Your task to perform on an android device: Empty the shopping cart on target.com. Search for "bose soundsport free" on target.com, select the first entry, add it to the cart, then select checkout. Image 0: 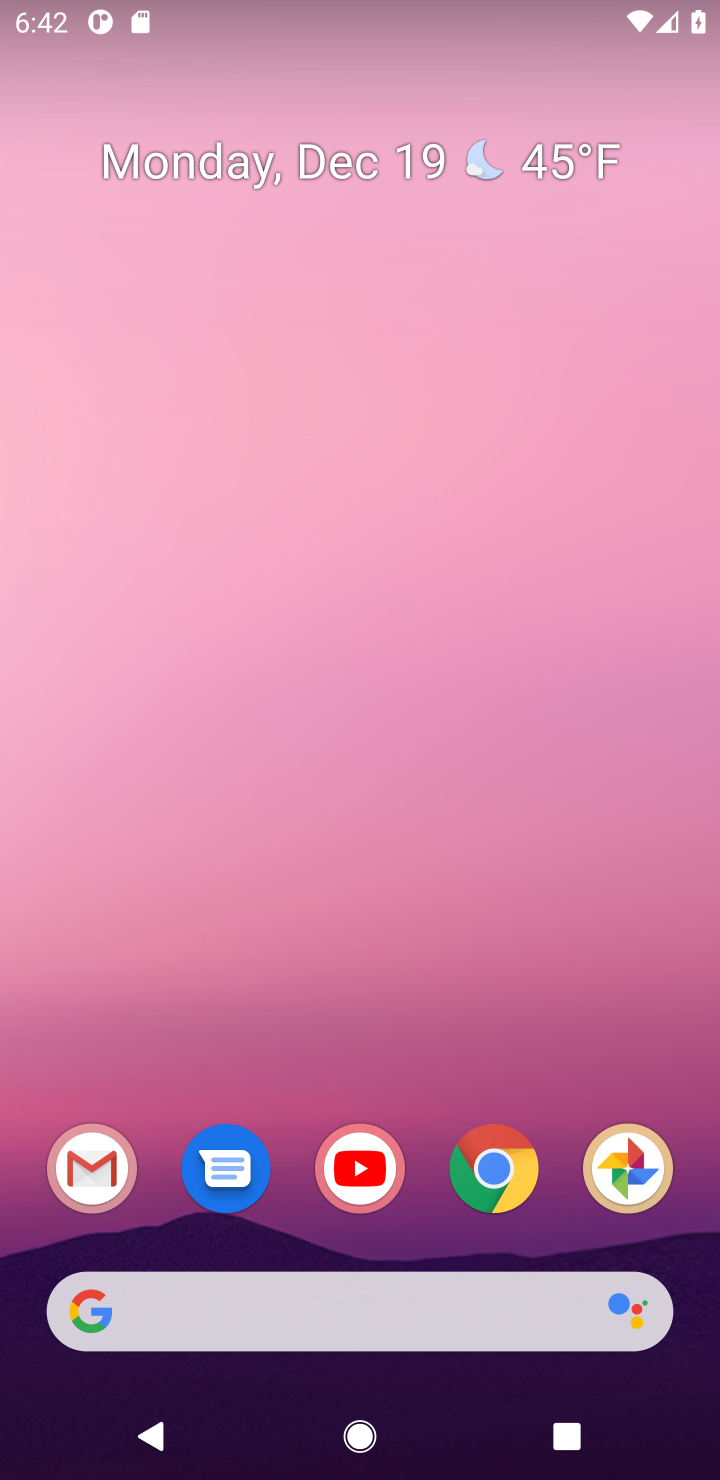
Step 0: click (486, 1175)
Your task to perform on an android device: Empty the shopping cart on target.com. Search for "bose soundsport free" on target.com, select the first entry, add it to the cart, then select checkout. Image 1: 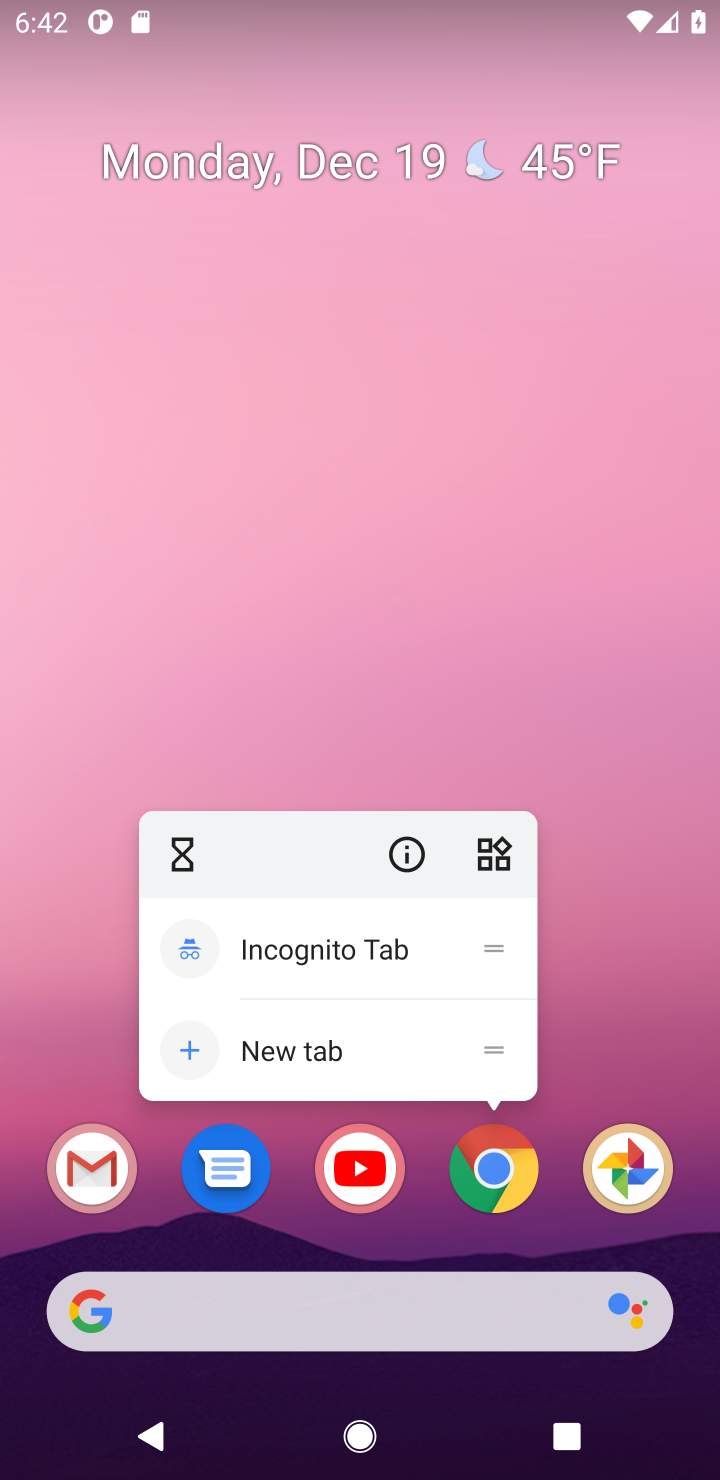
Step 1: click (486, 1175)
Your task to perform on an android device: Empty the shopping cart on target.com. Search for "bose soundsport free" on target.com, select the first entry, add it to the cart, then select checkout. Image 2: 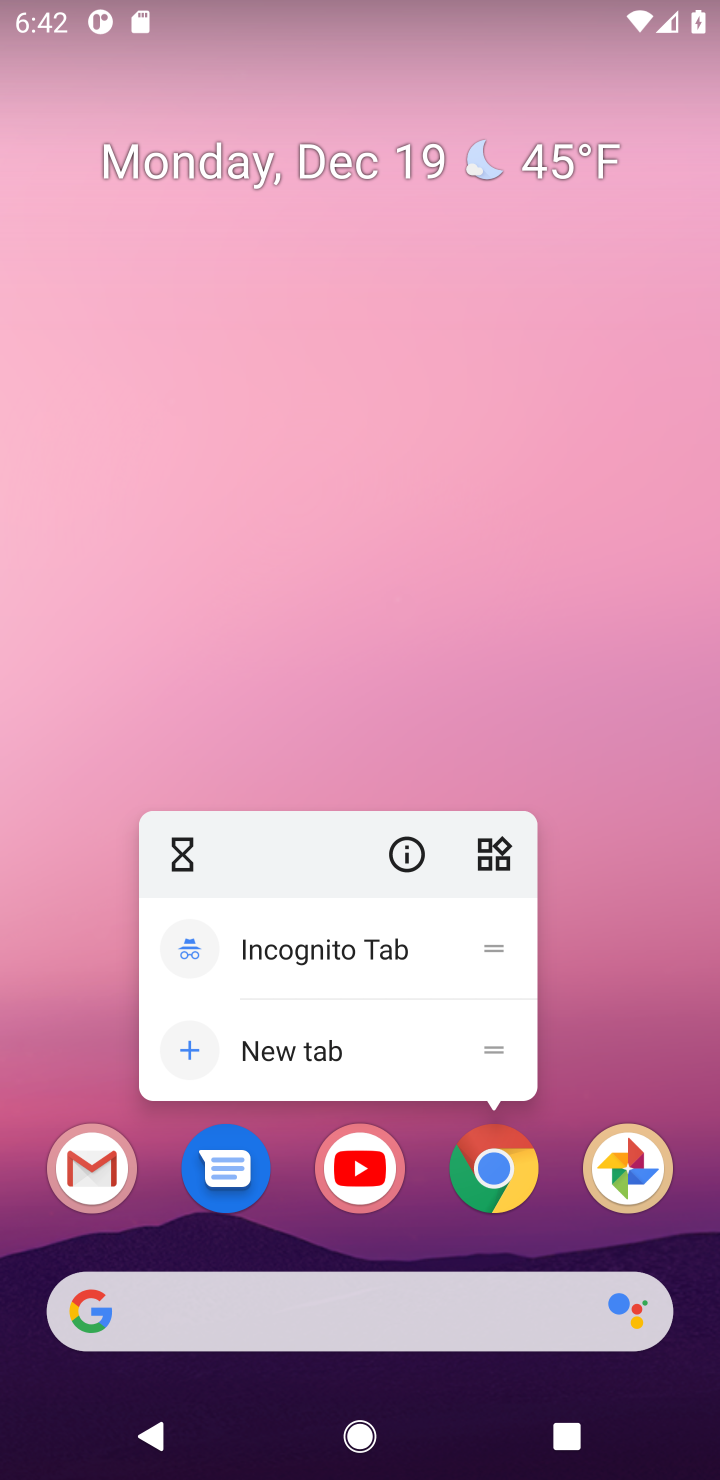
Step 2: click (504, 1184)
Your task to perform on an android device: Empty the shopping cart on target.com. Search for "bose soundsport free" on target.com, select the first entry, add it to the cart, then select checkout. Image 3: 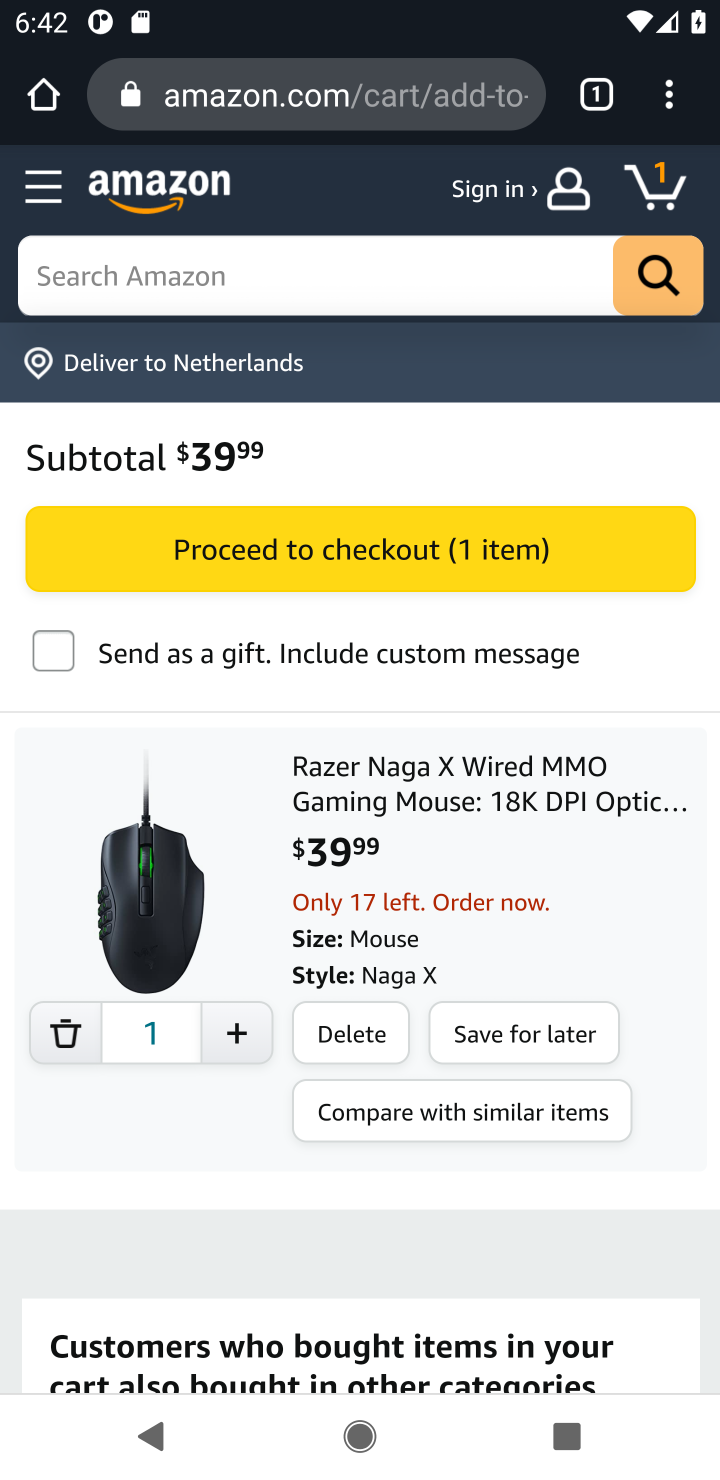
Step 3: click (218, 104)
Your task to perform on an android device: Empty the shopping cart on target.com. Search for "bose soundsport free" on target.com, select the first entry, add it to the cart, then select checkout. Image 4: 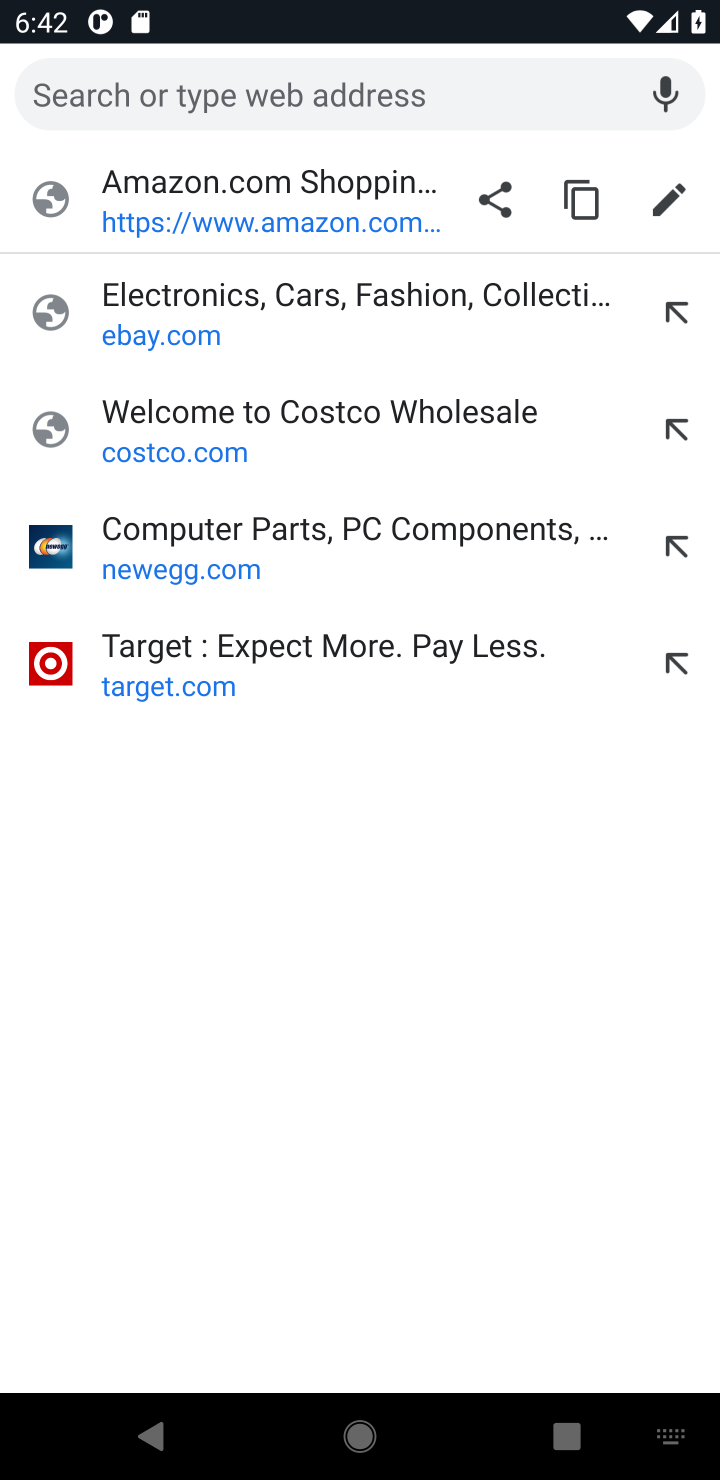
Step 4: click (124, 686)
Your task to perform on an android device: Empty the shopping cart on target.com. Search for "bose soundsport free" on target.com, select the first entry, add it to the cart, then select checkout. Image 5: 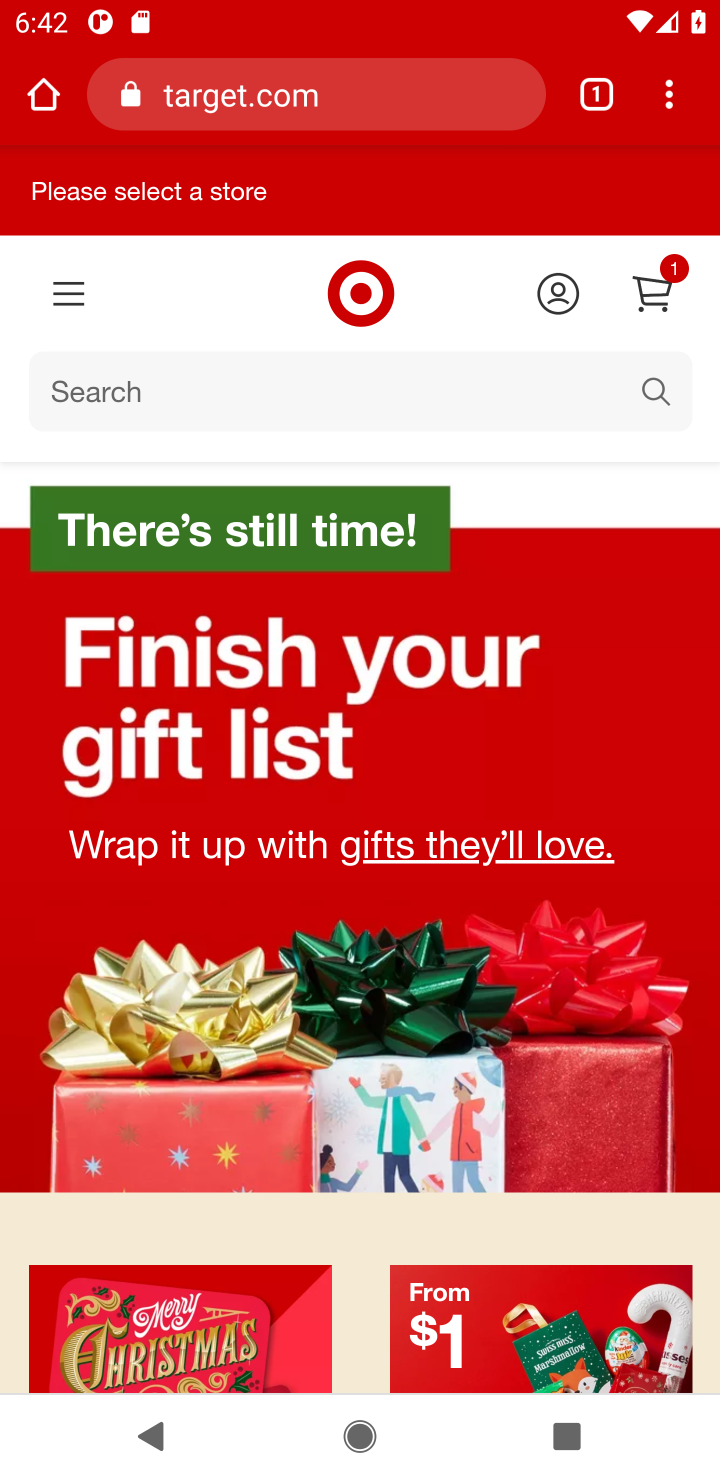
Step 5: click (655, 288)
Your task to perform on an android device: Empty the shopping cart on target.com. Search for "bose soundsport free" on target.com, select the first entry, add it to the cart, then select checkout. Image 6: 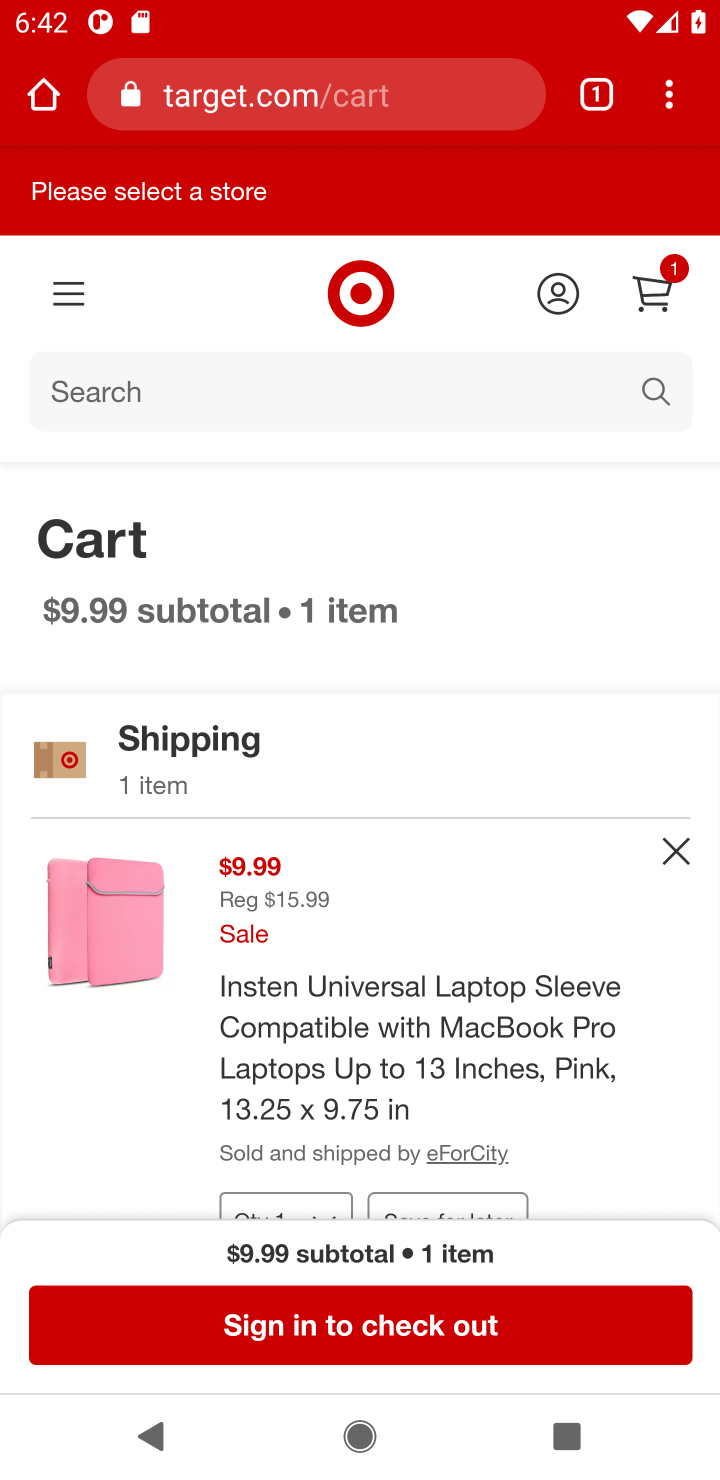
Step 6: click (677, 857)
Your task to perform on an android device: Empty the shopping cart on target.com. Search for "bose soundsport free" on target.com, select the first entry, add it to the cart, then select checkout. Image 7: 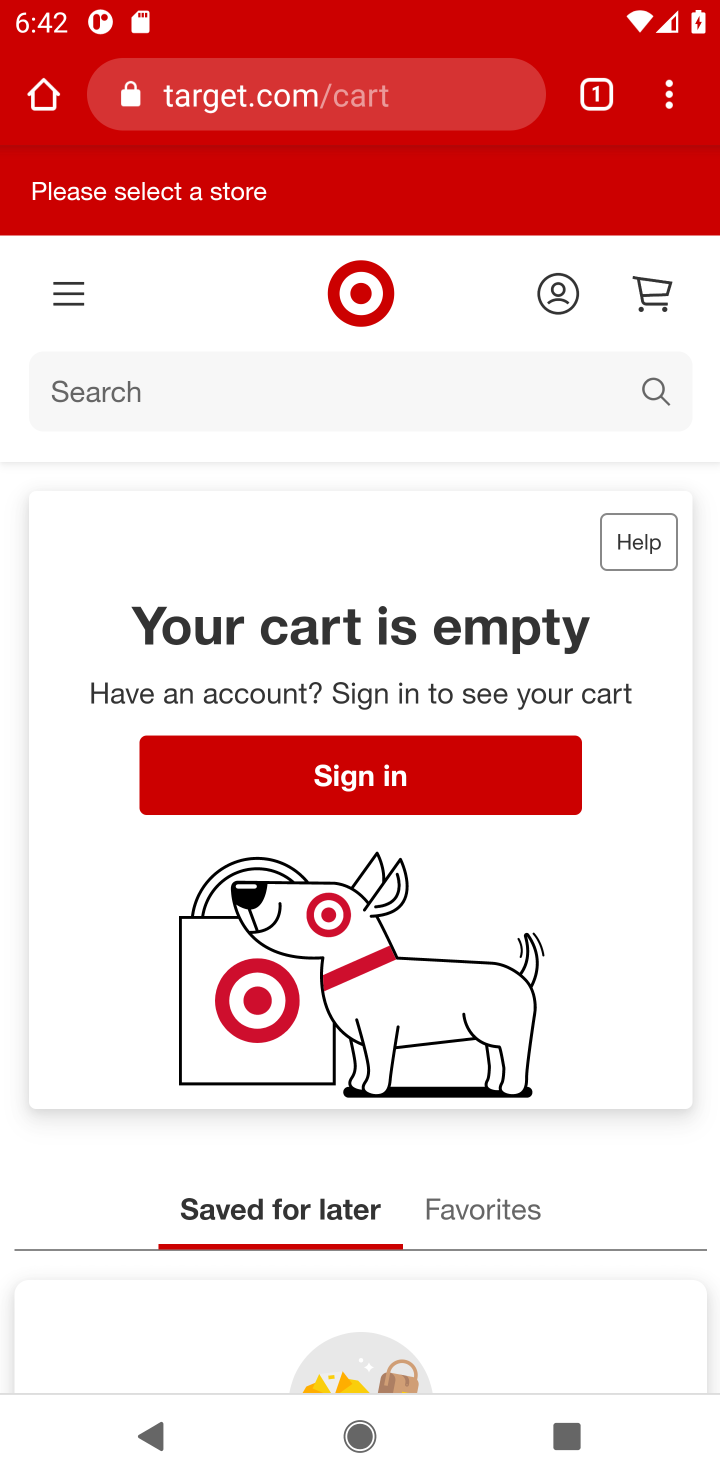
Step 7: click (154, 390)
Your task to perform on an android device: Empty the shopping cart on target.com. Search for "bose soundsport free" on target.com, select the first entry, add it to the cart, then select checkout. Image 8: 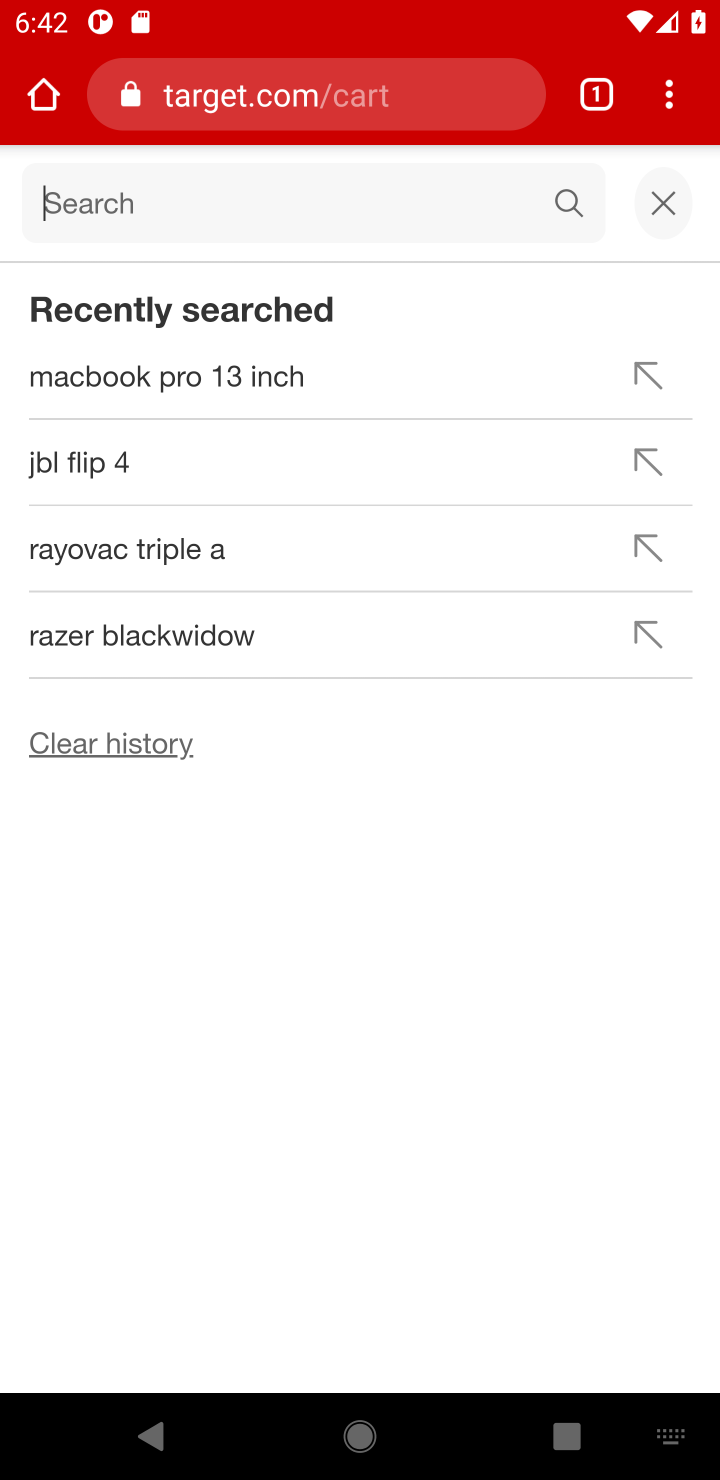
Step 8: type "bose soundsport free"
Your task to perform on an android device: Empty the shopping cart on target.com. Search for "bose soundsport free" on target.com, select the first entry, add it to the cart, then select checkout. Image 9: 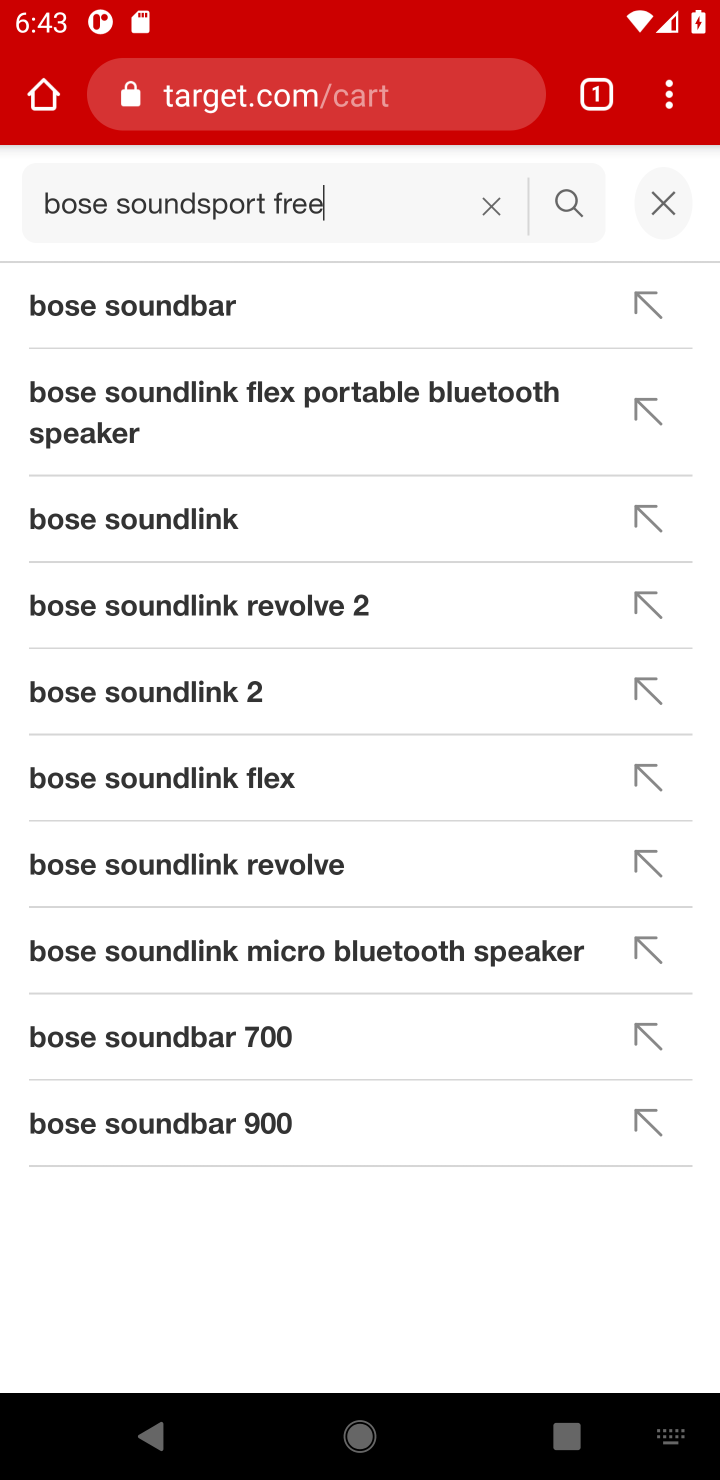
Step 9: click (574, 204)
Your task to perform on an android device: Empty the shopping cart on target.com. Search for "bose soundsport free" on target.com, select the first entry, add it to the cart, then select checkout. Image 10: 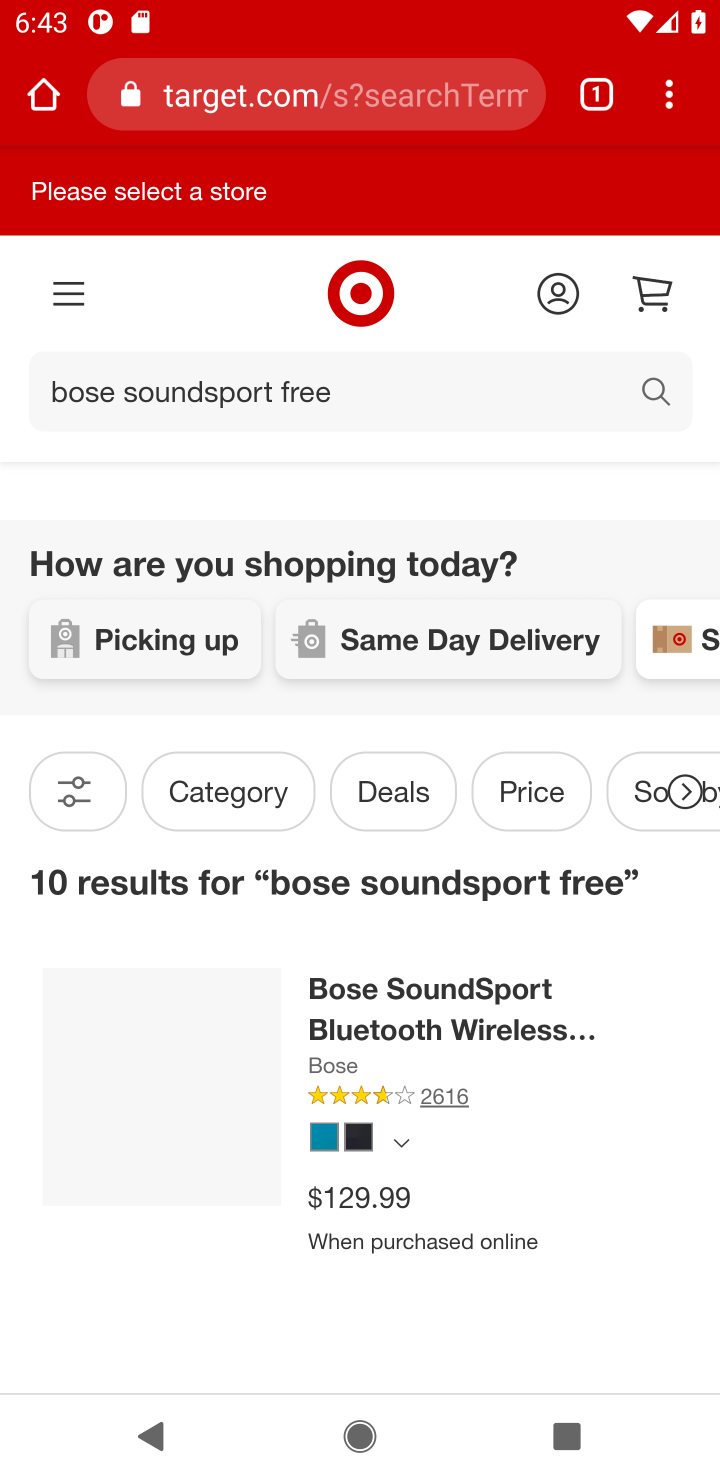
Step 10: task complete